Your task to perform on an android device: Go to accessibility settings Image 0: 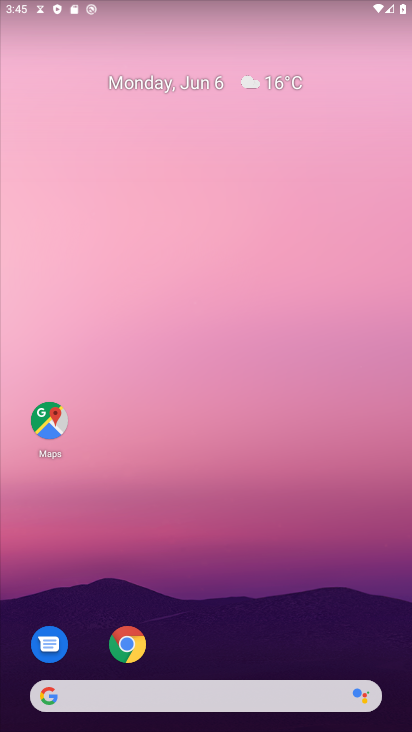
Step 0: drag from (141, 722) to (112, 83)
Your task to perform on an android device: Go to accessibility settings Image 1: 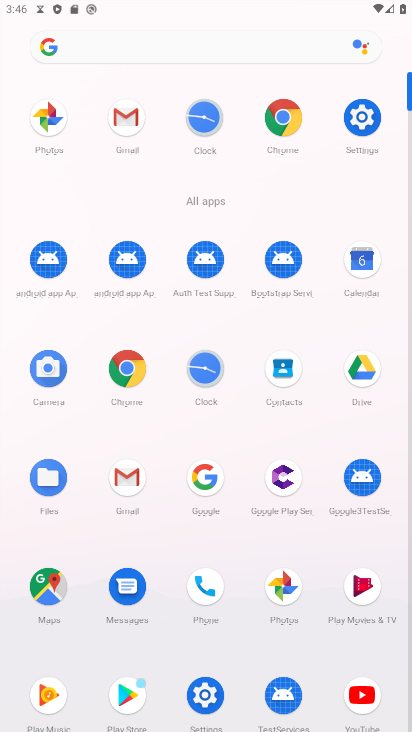
Step 1: click (189, 693)
Your task to perform on an android device: Go to accessibility settings Image 2: 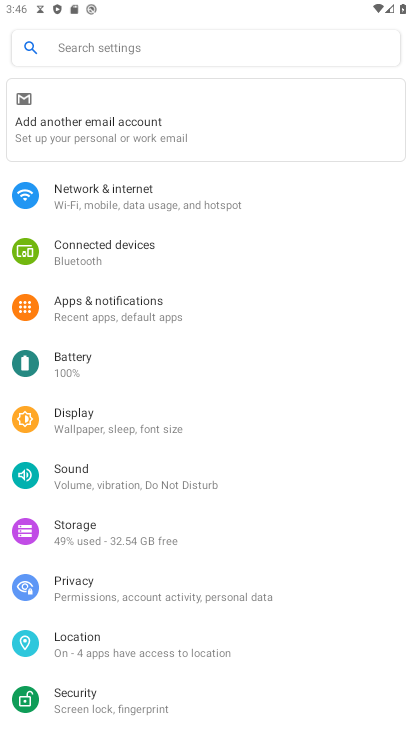
Step 2: drag from (270, 674) to (338, 167)
Your task to perform on an android device: Go to accessibility settings Image 3: 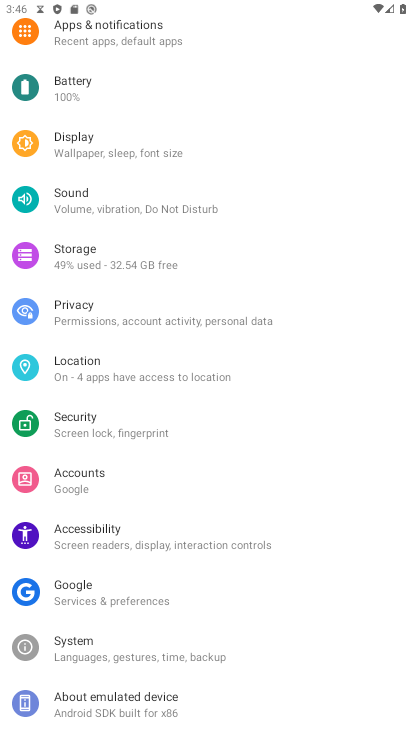
Step 3: click (140, 539)
Your task to perform on an android device: Go to accessibility settings Image 4: 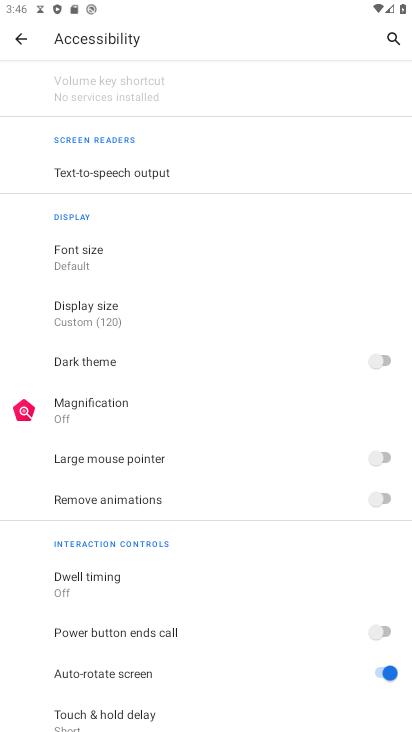
Step 4: task complete